Your task to perform on an android device: toggle show notifications on the lock screen Image 0: 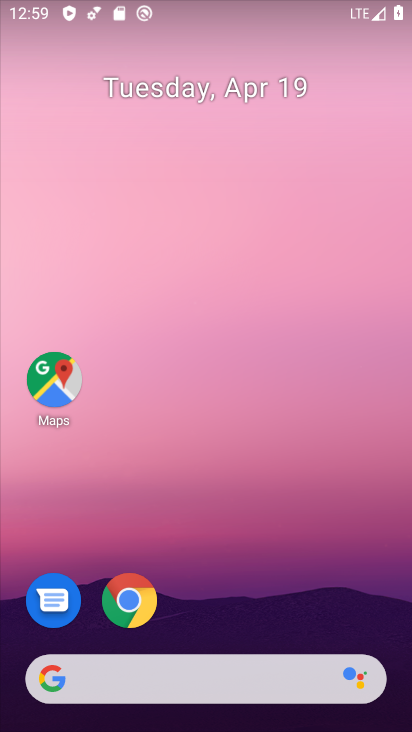
Step 0: drag from (225, 635) to (162, 38)
Your task to perform on an android device: toggle show notifications on the lock screen Image 1: 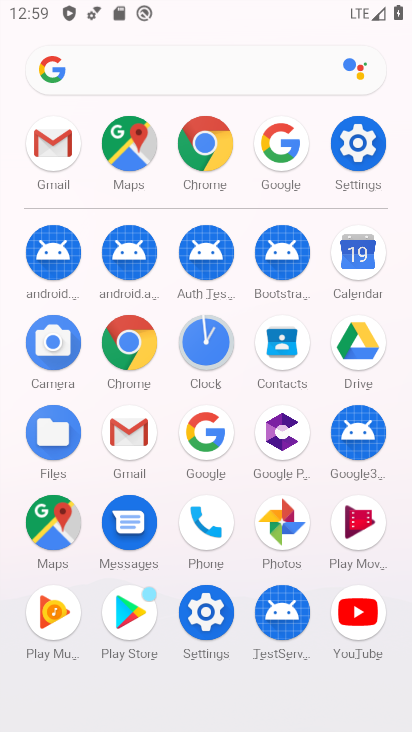
Step 1: click (345, 163)
Your task to perform on an android device: toggle show notifications on the lock screen Image 2: 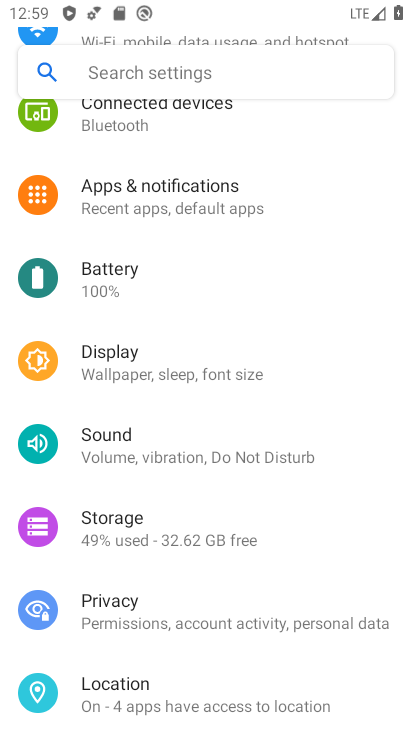
Step 2: click (155, 211)
Your task to perform on an android device: toggle show notifications on the lock screen Image 3: 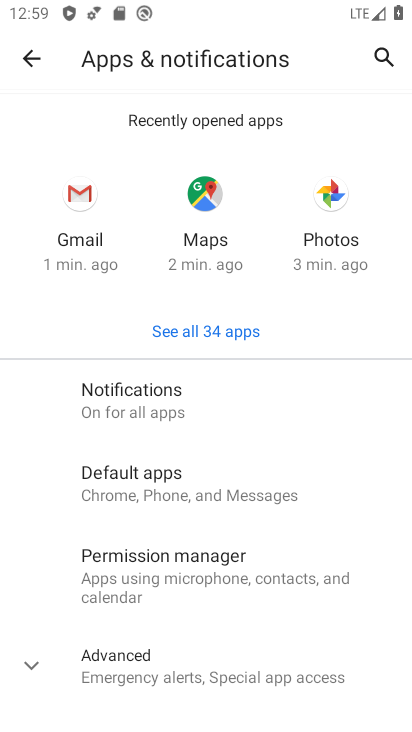
Step 3: click (133, 397)
Your task to perform on an android device: toggle show notifications on the lock screen Image 4: 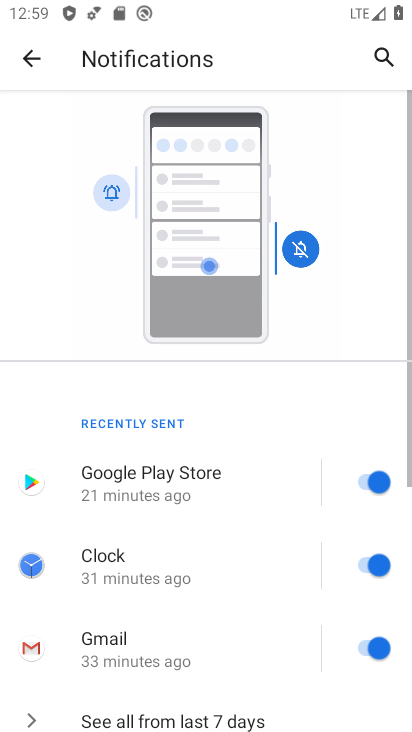
Step 4: drag from (149, 633) to (138, 191)
Your task to perform on an android device: toggle show notifications on the lock screen Image 5: 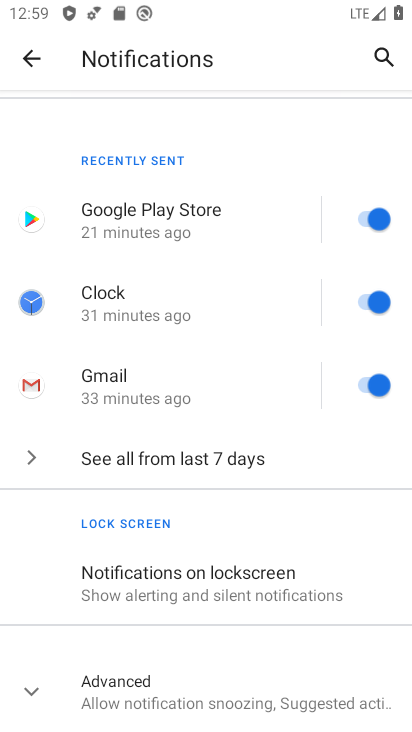
Step 5: click (175, 567)
Your task to perform on an android device: toggle show notifications on the lock screen Image 6: 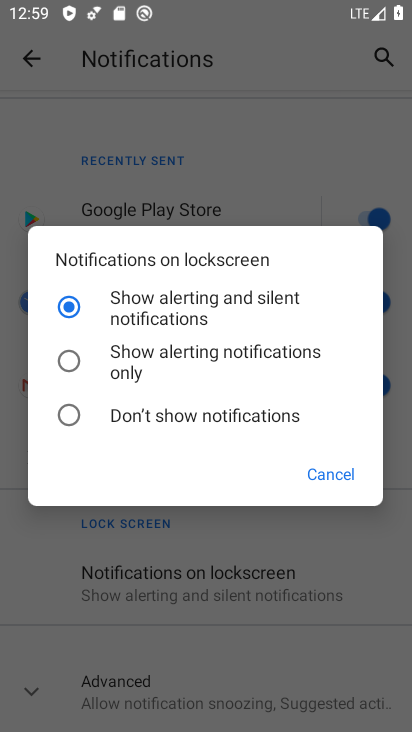
Step 6: click (131, 415)
Your task to perform on an android device: toggle show notifications on the lock screen Image 7: 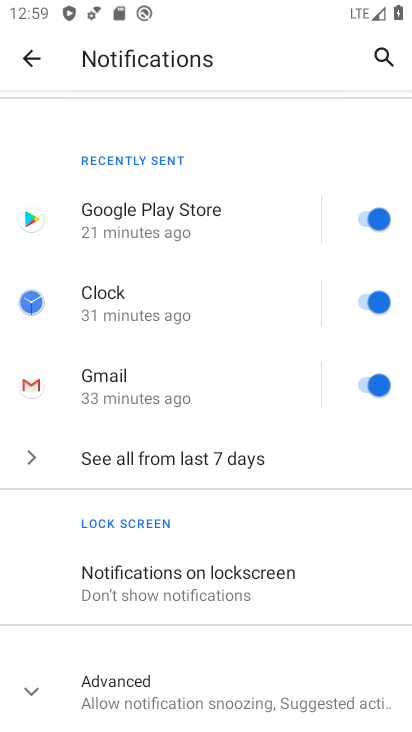
Step 7: task complete